Your task to perform on an android device: change the clock display to analog Image 0: 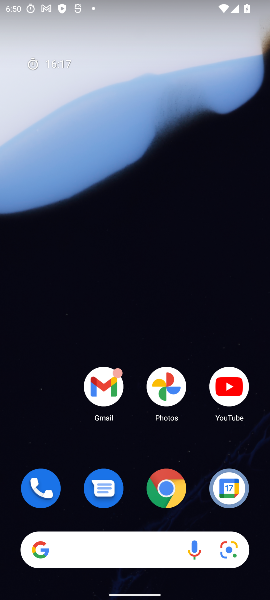
Step 0: drag from (175, 477) to (151, 19)
Your task to perform on an android device: change the clock display to analog Image 1: 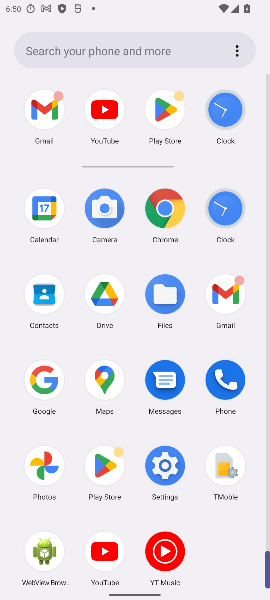
Step 1: click (232, 194)
Your task to perform on an android device: change the clock display to analog Image 2: 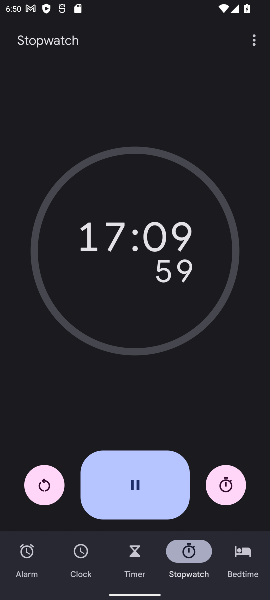
Step 2: click (251, 39)
Your task to perform on an android device: change the clock display to analog Image 3: 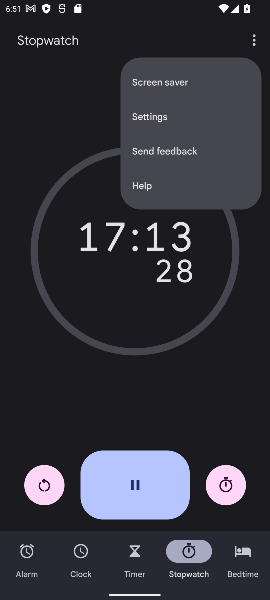
Step 3: click (154, 120)
Your task to perform on an android device: change the clock display to analog Image 4: 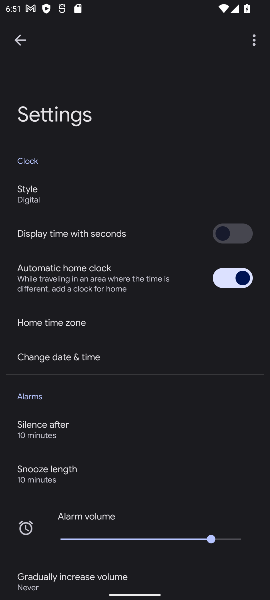
Step 4: click (32, 190)
Your task to perform on an android device: change the clock display to analog Image 5: 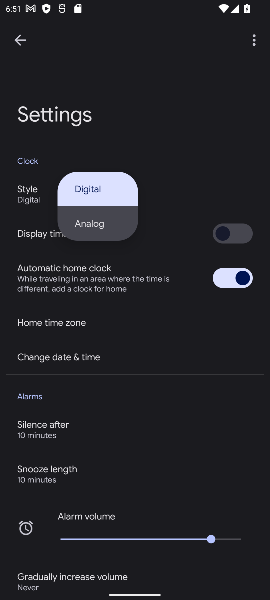
Step 5: click (91, 220)
Your task to perform on an android device: change the clock display to analog Image 6: 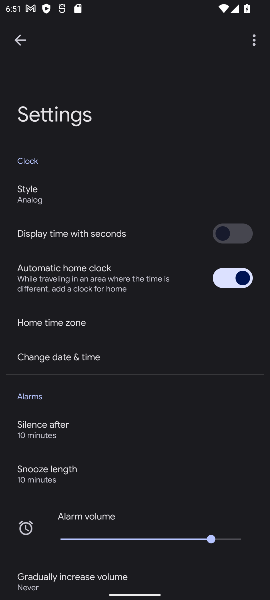
Step 6: task complete